Your task to perform on an android device: Search for flights from Mexico city to Seattle Image 0: 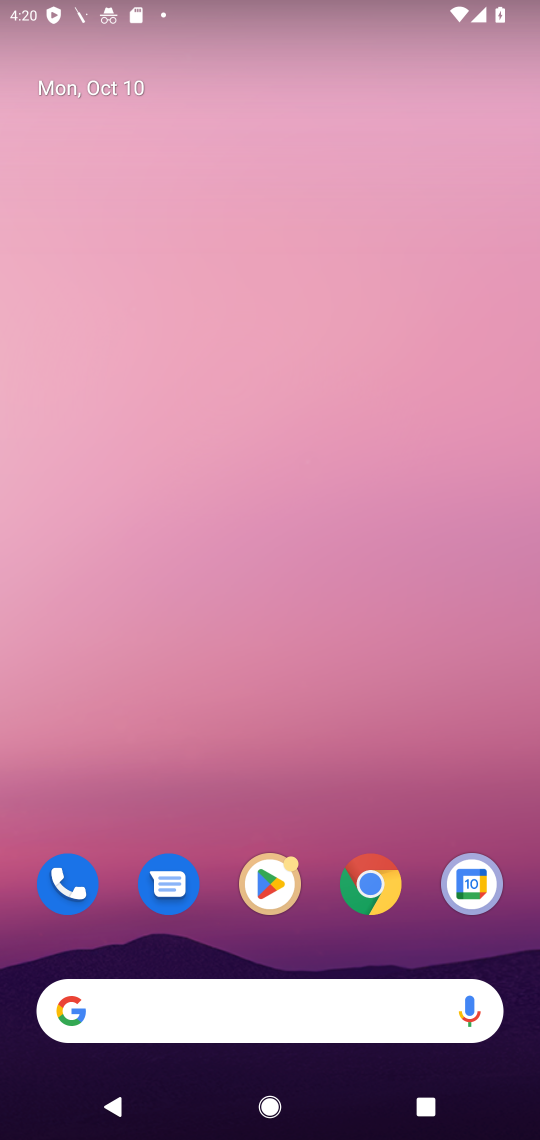
Step 0: click (305, 991)
Your task to perform on an android device: Search for flights from Mexico city to Seattle Image 1: 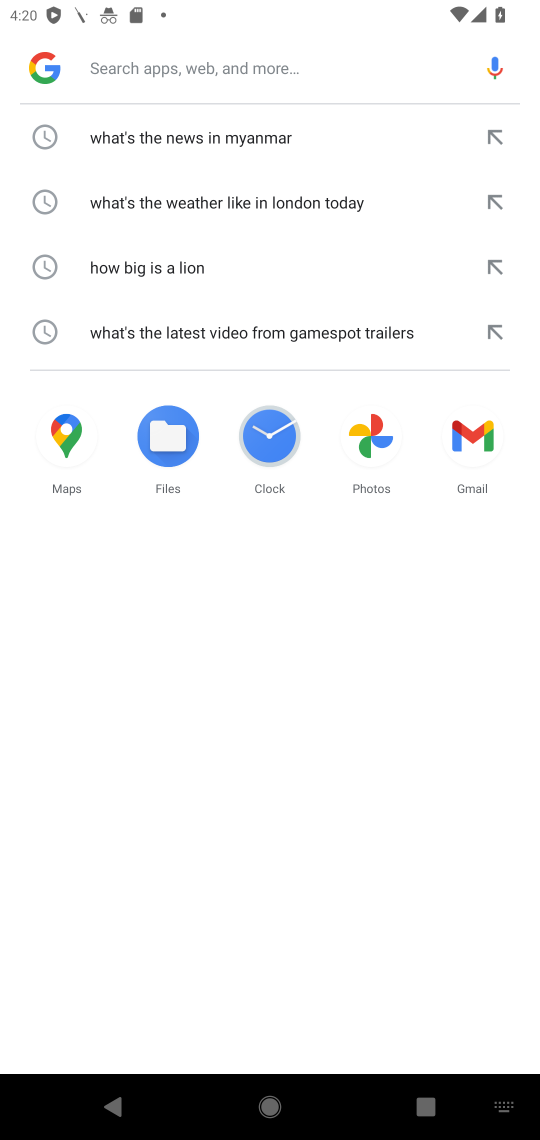
Step 1: type "flights from Mexico city to Seattle"
Your task to perform on an android device: Search for flights from Mexico city to Seattle Image 2: 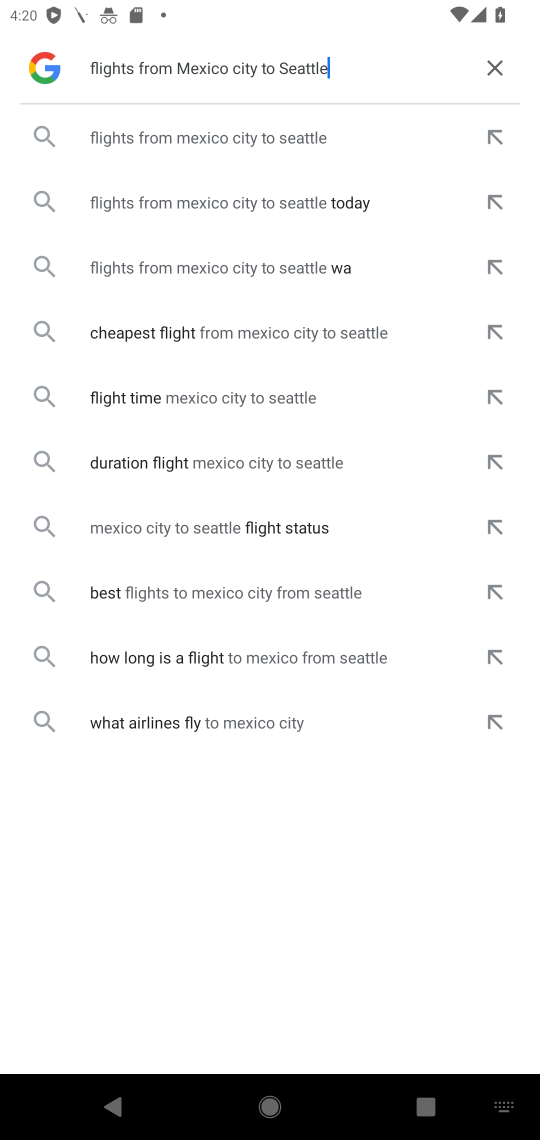
Step 2: click (152, 138)
Your task to perform on an android device: Search for flights from Mexico city to Seattle Image 3: 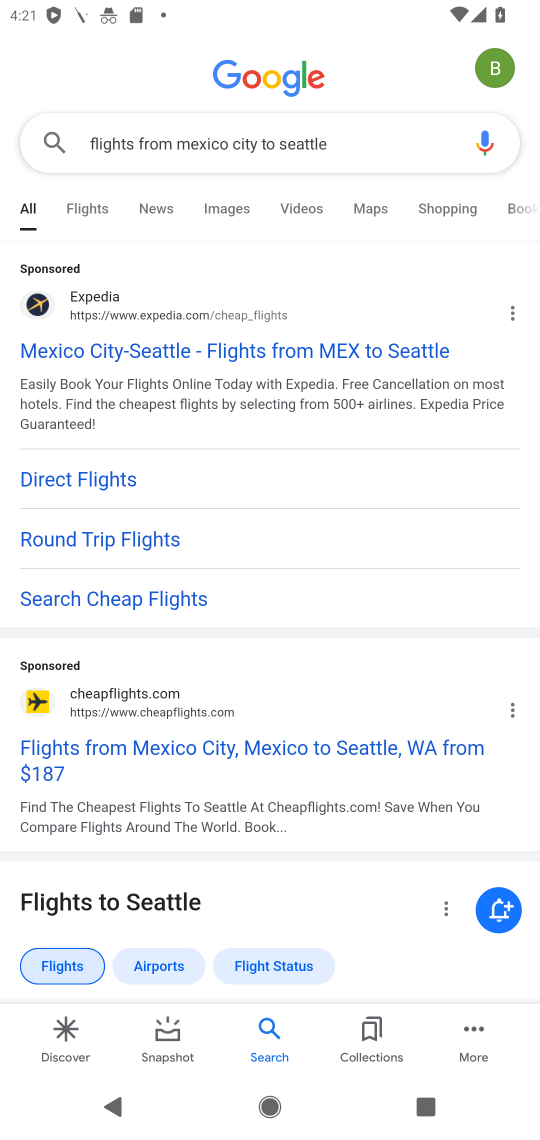
Step 3: click (255, 345)
Your task to perform on an android device: Search for flights from Mexico city to Seattle Image 4: 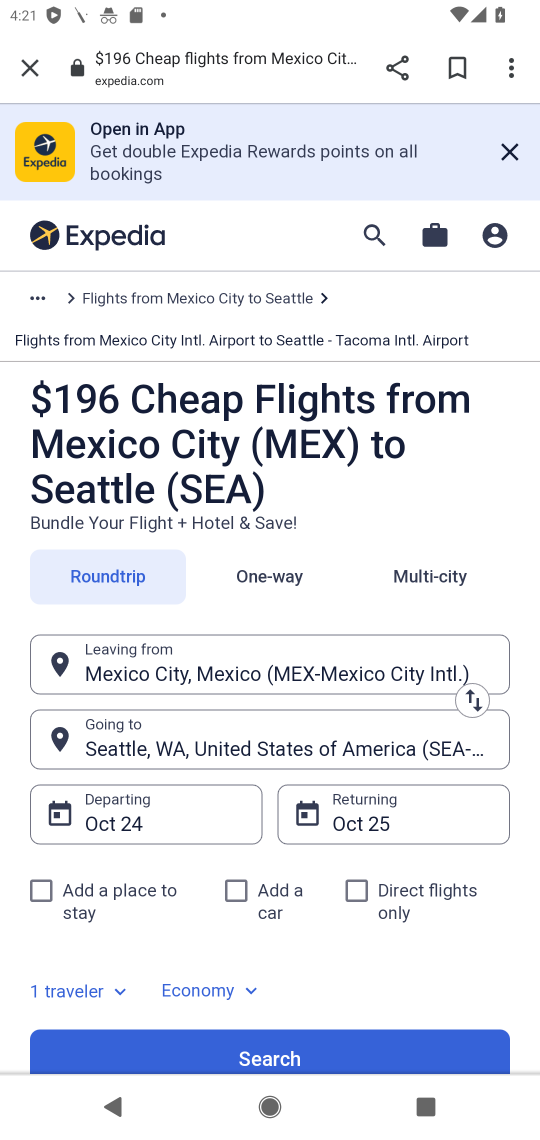
Step 4: click (269, 1051)
Your task to perform on an android device: Search for flights from Mexico city to Seattle Image 5: 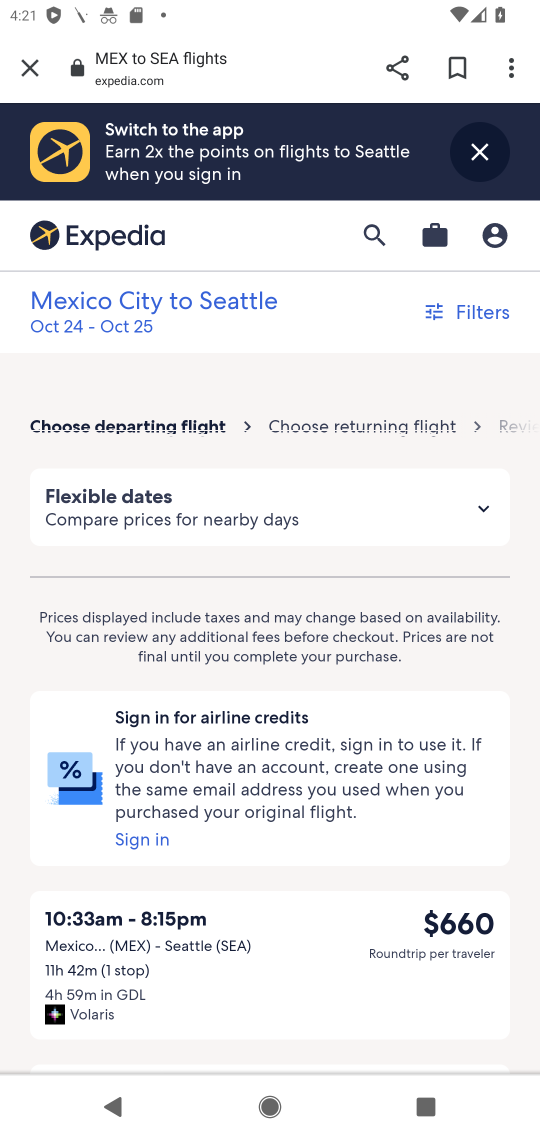
Step 5: task complete